Your task to perform on an android device: Open notification settings Image 0: 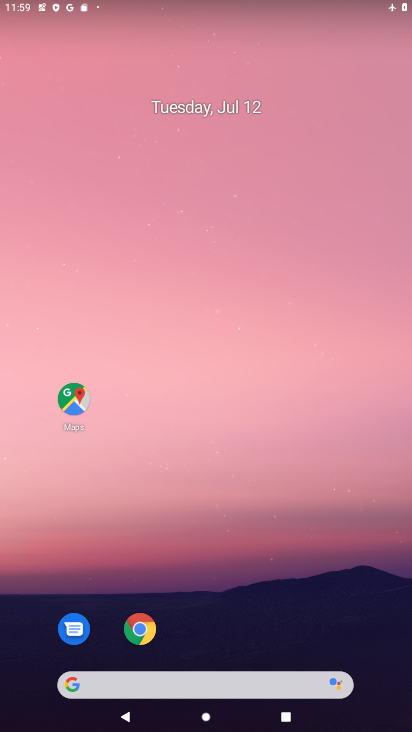
Step 0: drag from (257, 573) to (305, 95)
Your task to perform on an android device: Open notification settings Image 1: 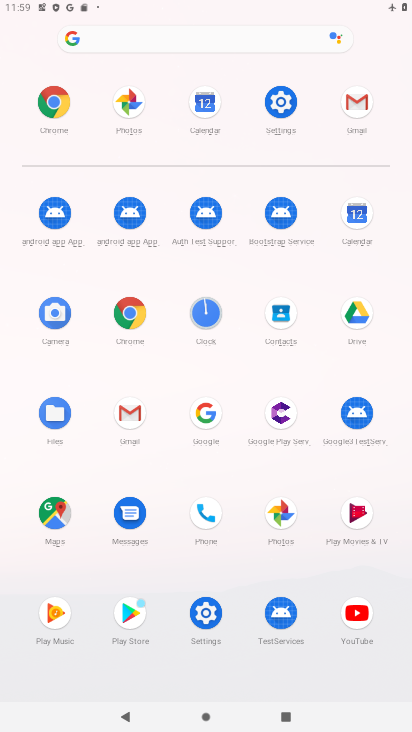
Step 1: click (277, 96)
Your task to perform on an android device: Open notification settings Image 2: 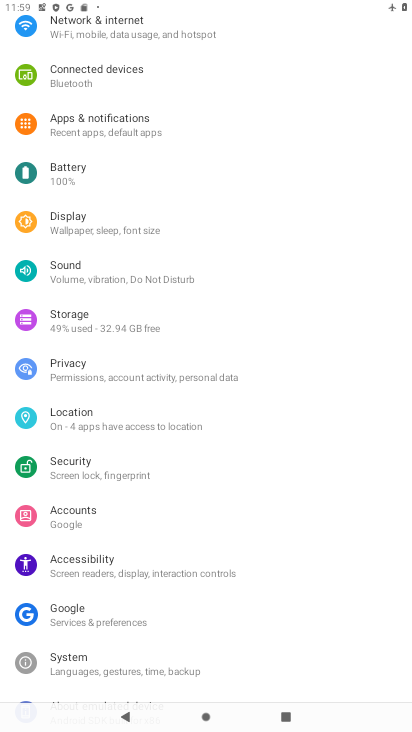
Step 2: click (109, 115)
Your task to perform on an android device: Open notification settings Image 3: 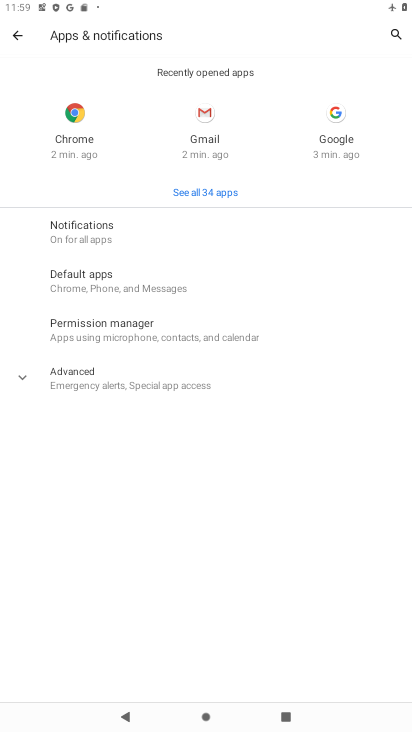
Step 3: click (91, 227)
Your task to perform on an android device: Open notification settings Image 4: 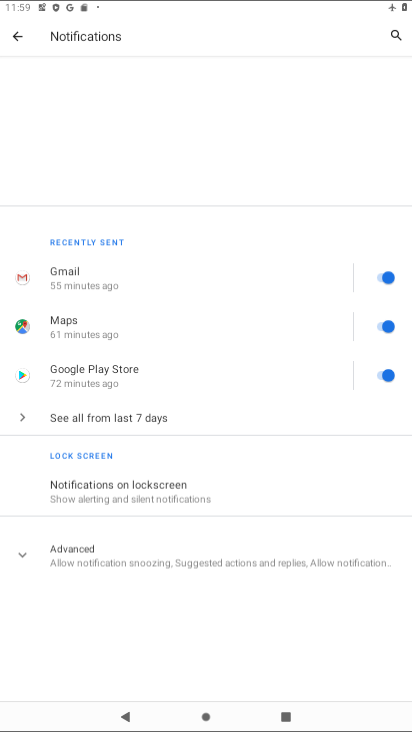
Step 4: task complete